Your task to perform on an android device: Open Chrome and go to settings Image 0: 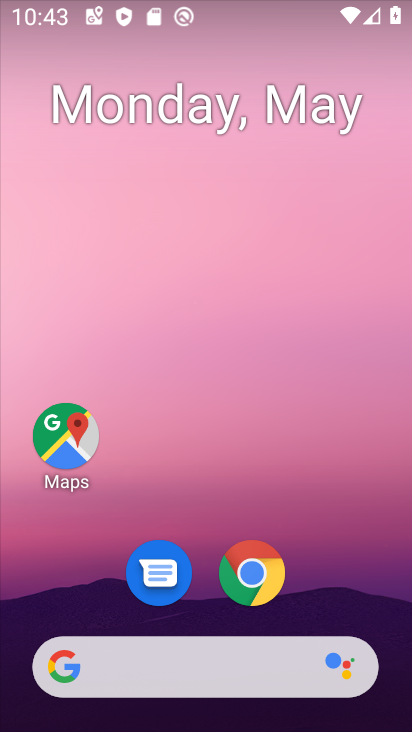
Step 0: click (258, 583)
Your task to perform on an android device: Open Chrome and go to settings Image 1: 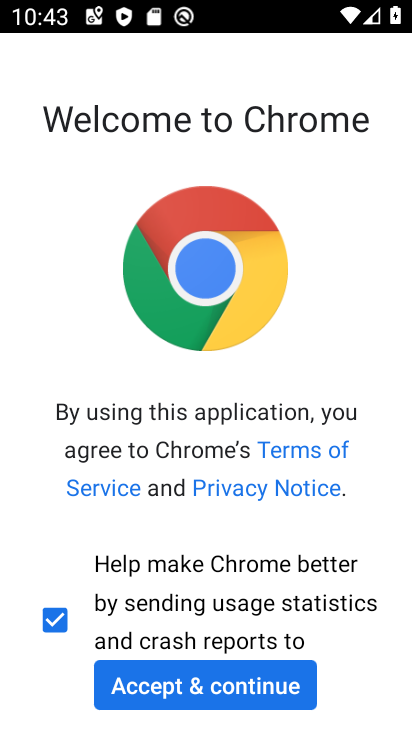
Step 1: click (204, 684)
Your task to perform on an android device: Open Chrome and go to settings Image 2: 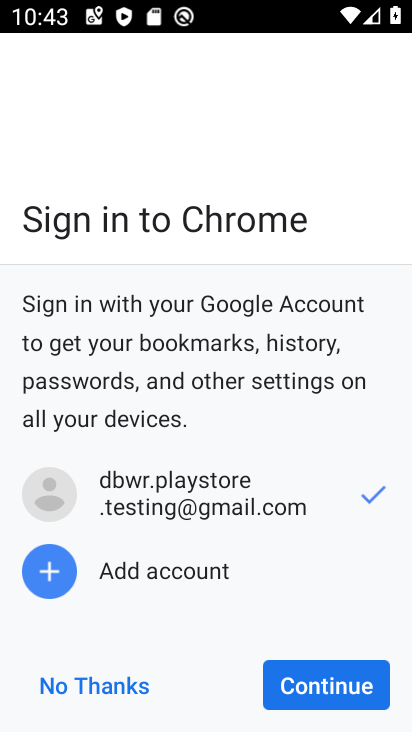
Step 2: click (370, 676)
Your task to perform on an android device: Open Chrome and go to settings Image 3: 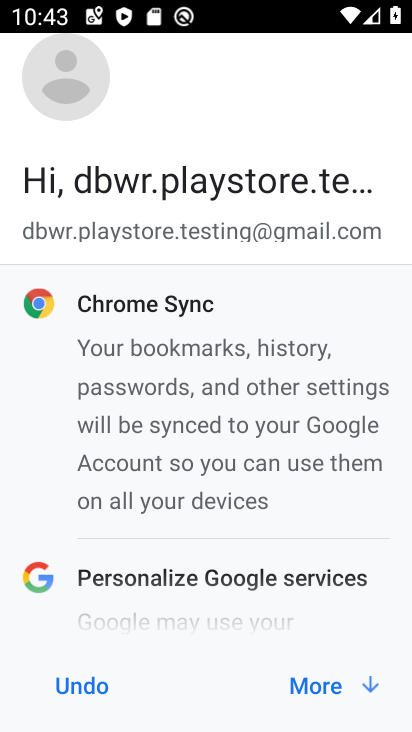
Step 3: click (332, 679)
Your task to perform on an android device: Open Chrome and go to settings Image 4: 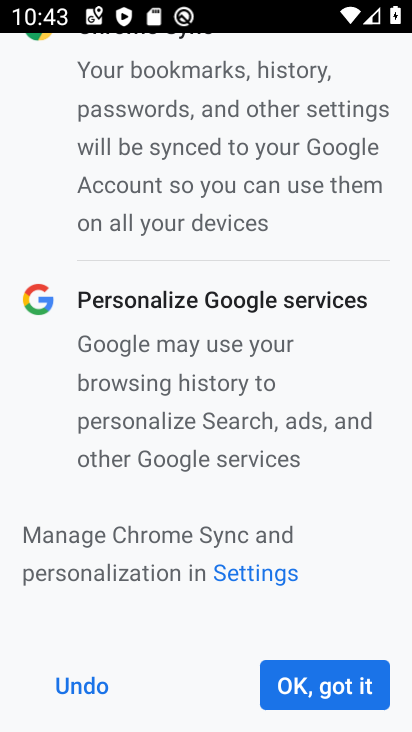
Step 4: click (315, 676)
Your task to perform on an android device: Open Chrome and go to settings Image 5: 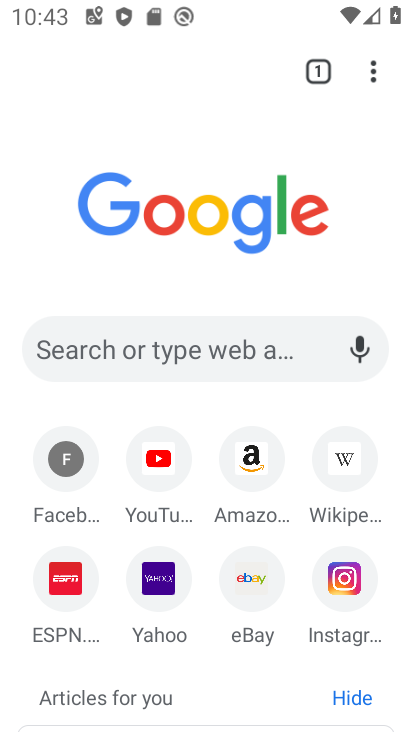
Step 5: task complete